Your task to perform on an android device: Open battery settings Image 0: 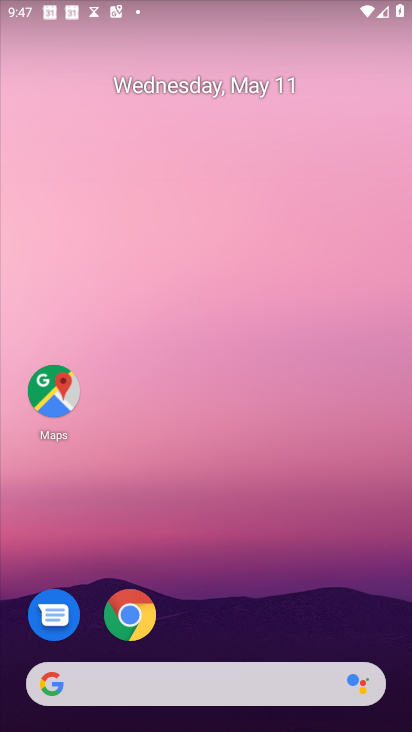
Step 0: drag from (238, 603) to (234, 169)
Your task to perform on an android device: Open battery settings Image 1: 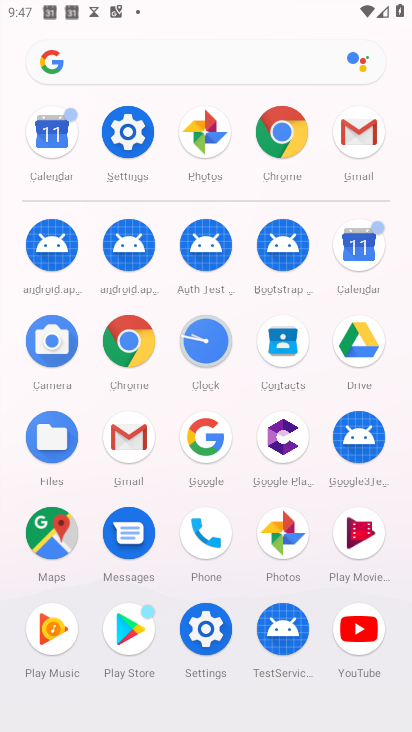
Step 1: click (203, 643)
Your task to perform on an android device: Open battery settings Image 2: 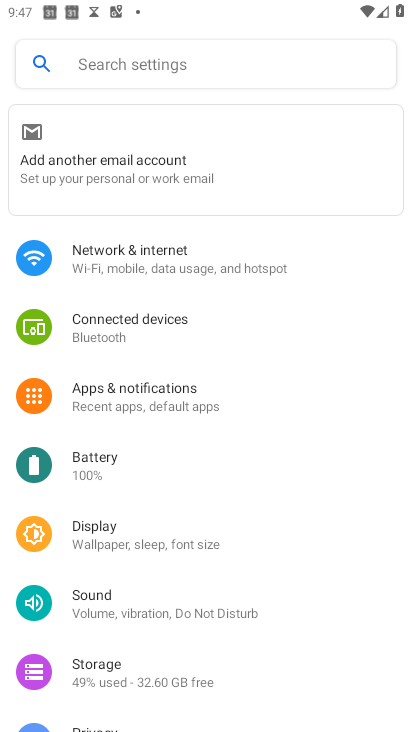
Step 2: click (125, 475)
Your task to perform on an android device: Open battery settings Image 3: 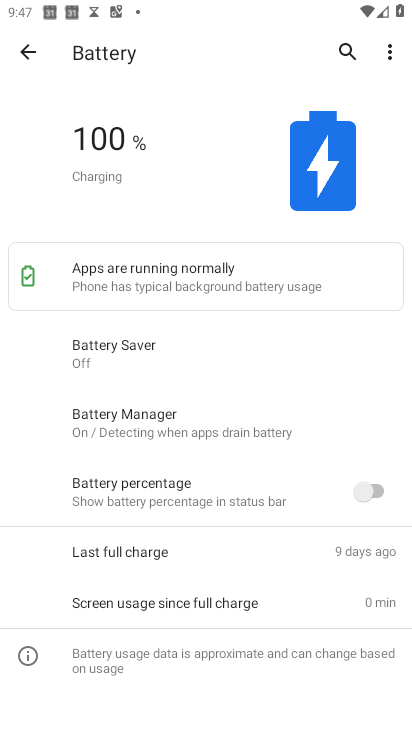
Step 3: task complete